Your task to perform on an android device: check data usage Image 0: 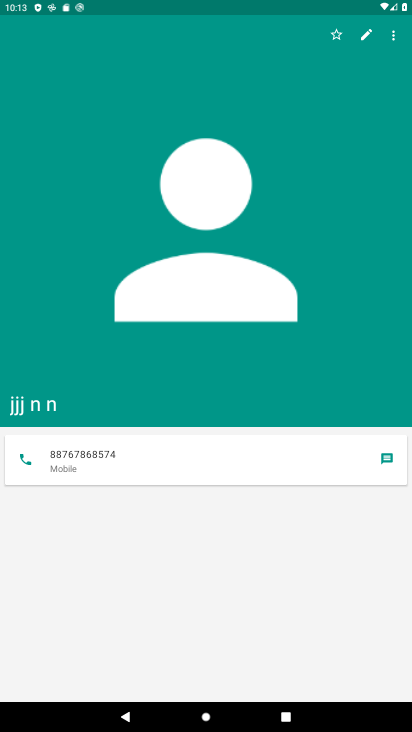
Step 0: press home button
Your task to perform on an android device: check data usage Image 1: 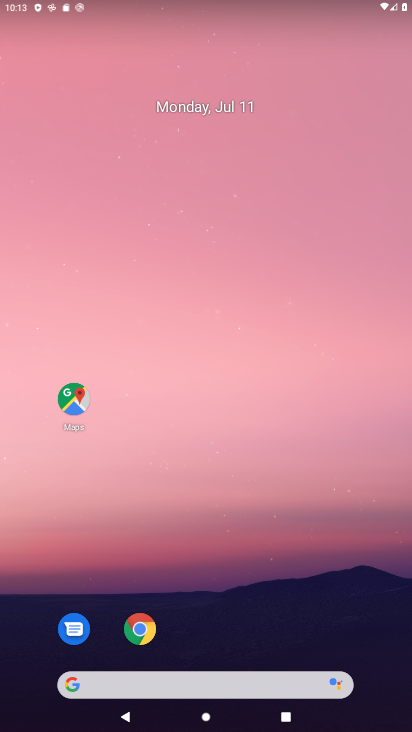
Step 1: drag from (236, 635) to (199, 281)
Your task to perform on an android device: check data usage Image 2: 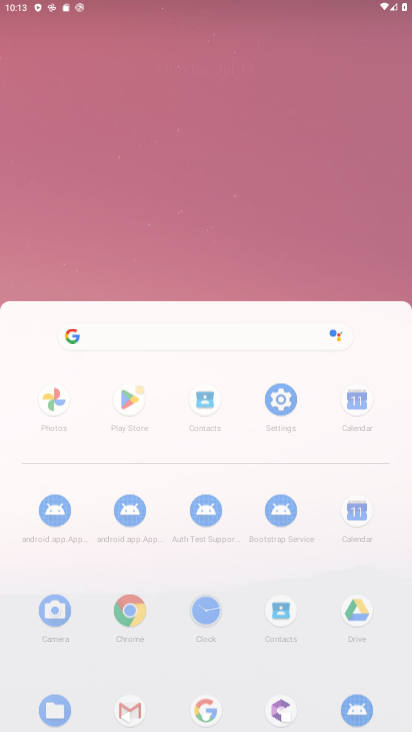
Step 2: drag from (199, 281) to (199, 221)
Your task to perform on an android device: check data usage Image 3: 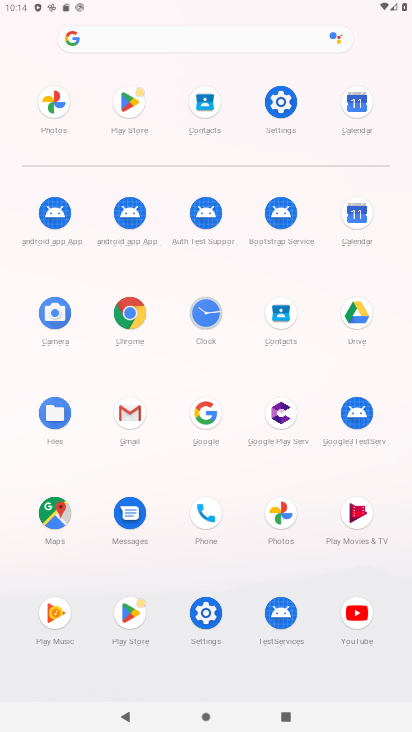
Step 3: click (261, 116)
Your task to perform on an android device: check data usage Image 4: 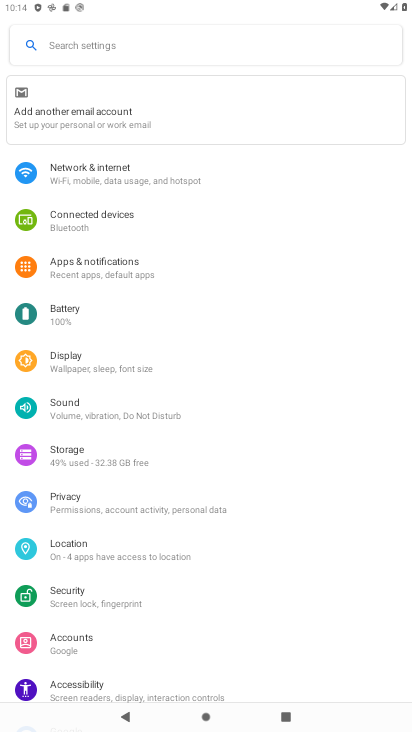
Step 4: click (158, 182)
Your task to perform on an android device: check data usage Image 5: 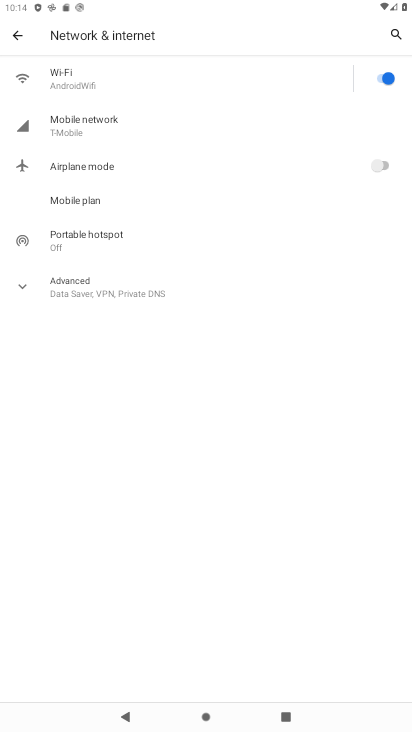
Step 5: click (108, 117)
Your task to perform on an android device: check data usage Image 6: 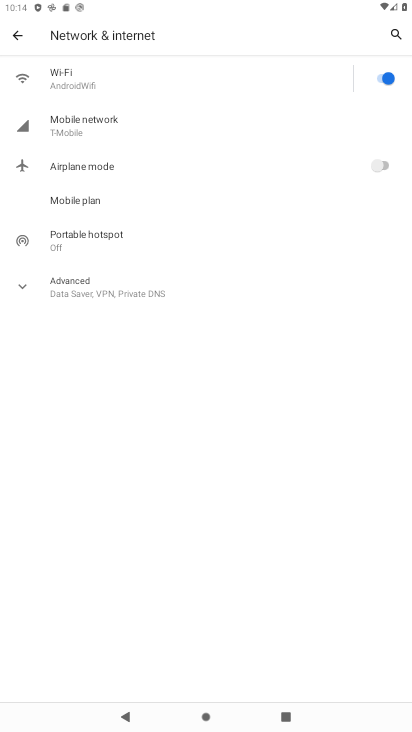
Step 6: task complete